Your task to perform on an android device: change text size in settings app Image 0: 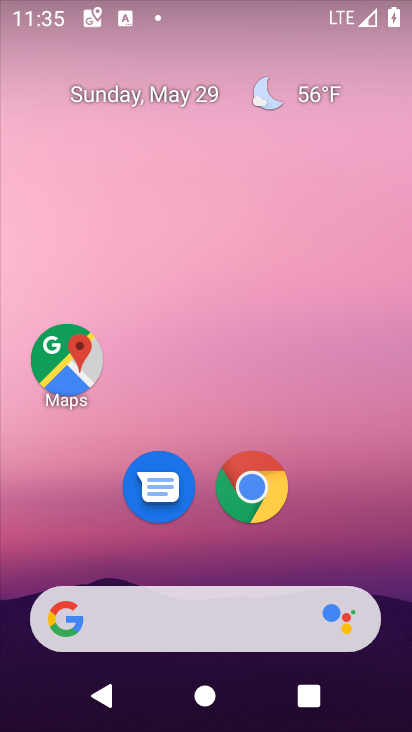
Step 0: drag from (171, 625) to (188, 114)
Your task to perform on an android device: change text size in settings app Image 1: 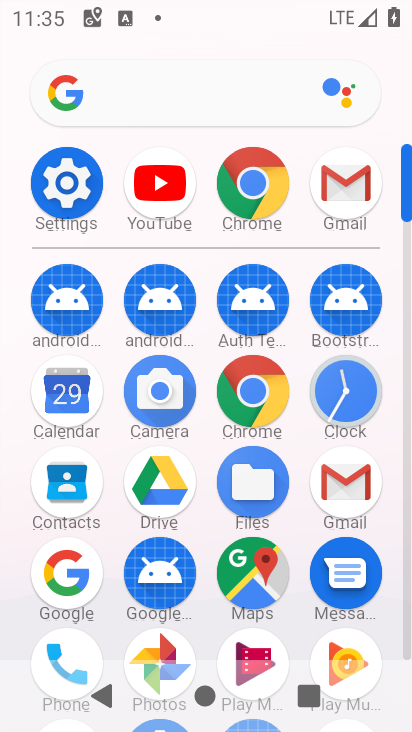
Step 1: click (77, 192)
Your task to perform on an android device: change text size in settings app Image 2: 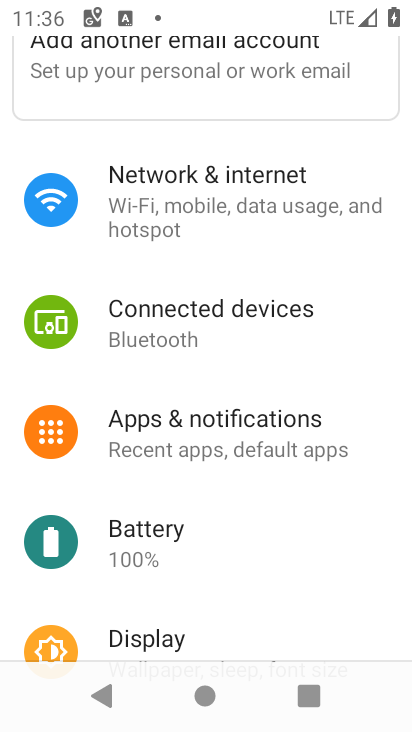
Step 2: drag from (311, 544) to (296, 216)
Your task to perform on an android device: change text size in settings app Image 3: 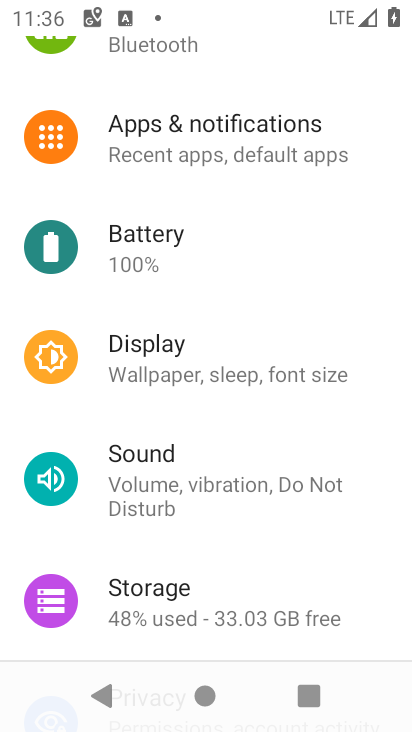
Step 3: drag from (256, 249) to (229, 627)
Your task to perform on an android device: change text size in settings app Image 4: 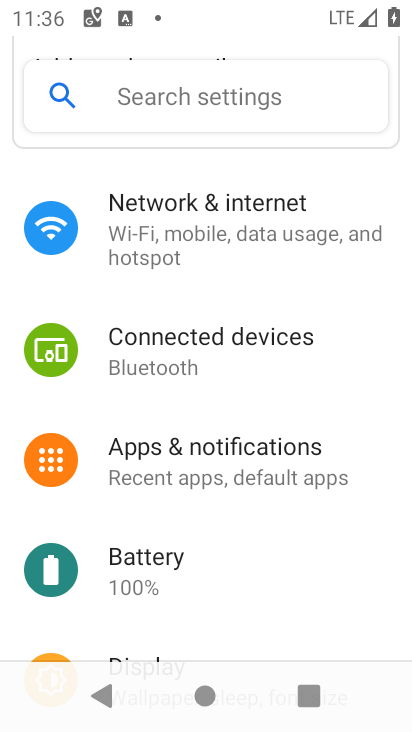
Step 4: drag from (250, 521) to (222, 441)
Your task to perform on an android device: change text size in settings app Image 5: 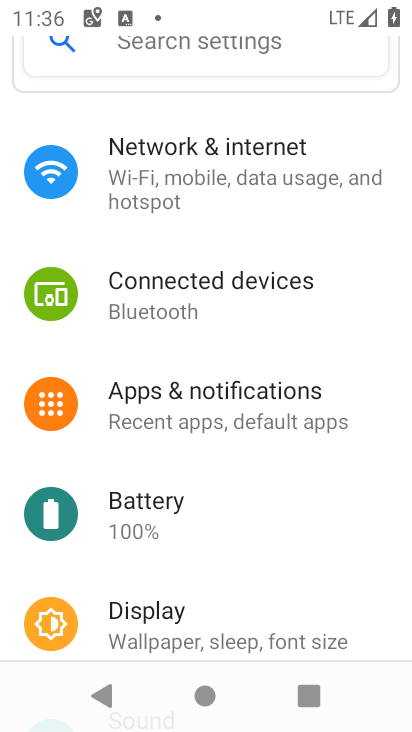
Step 5: click (230, 626)
Your task to perform on an android device: change text size in settings app Image 6: 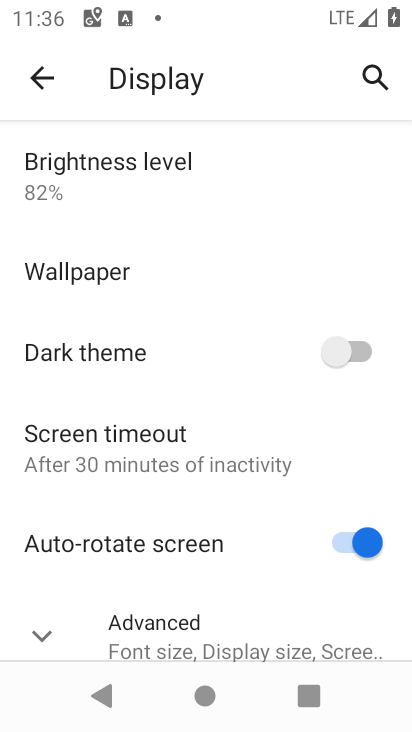
Step 6: click (259, 620)
Your task to perform on an android device: change text size in settings app Image 7: 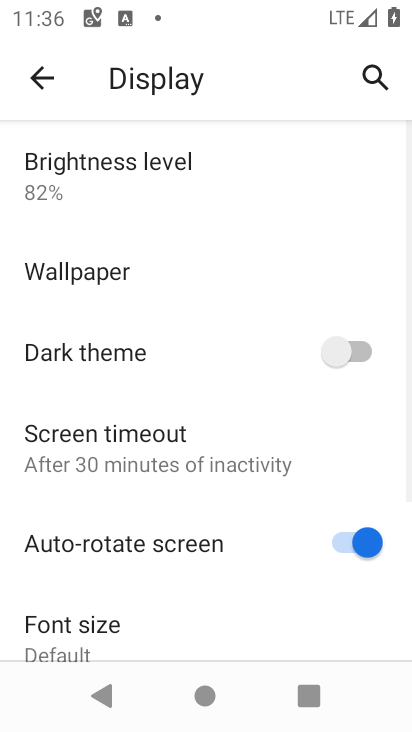
Step 7: drag from (249, 547) to (244, 92)
Your task to perform on an android device: change text size in settings app Image 8: 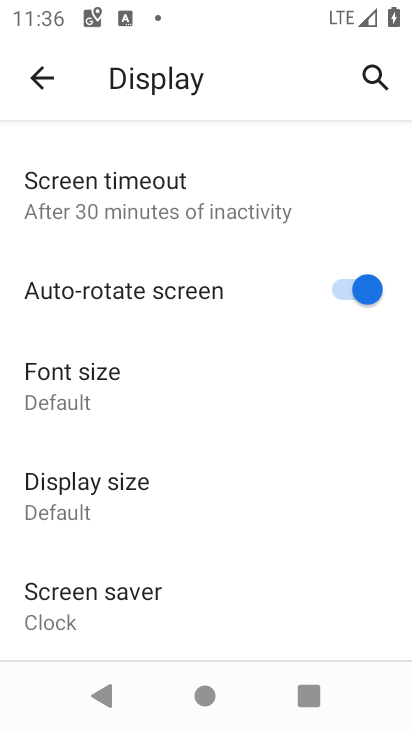
Step 8: click (135, 372)
Your task to perform on an android device: change text size in settings app Image 9: 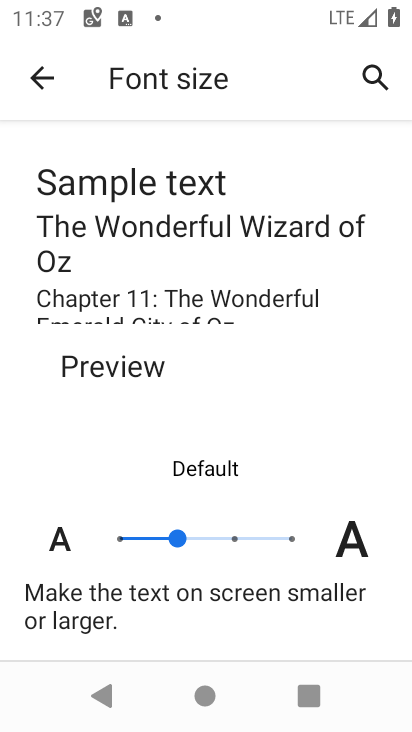
Step 9: click (233, 541)
Your task to perform on an android device: change text size in settings app Image 10: 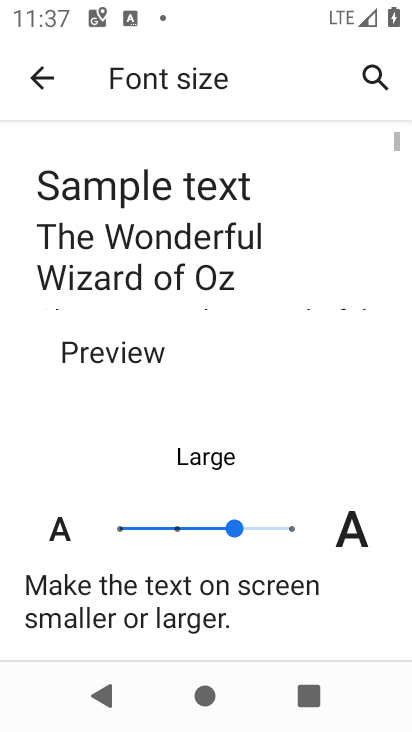
Step 10: task complete